Your task to perform on an android device: Open Google Chrome and click the shortcut for Amazon.com Image 0: 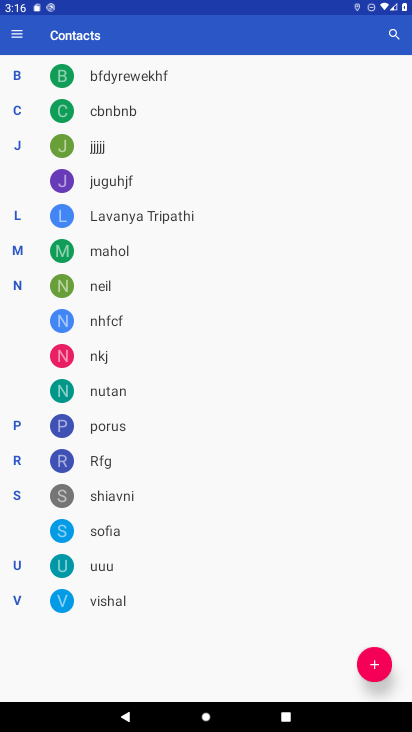
Step 0: press home button
Your task to perform on an android device: Open Google Chrome and click the shortcut for Amazon.com Image 1: 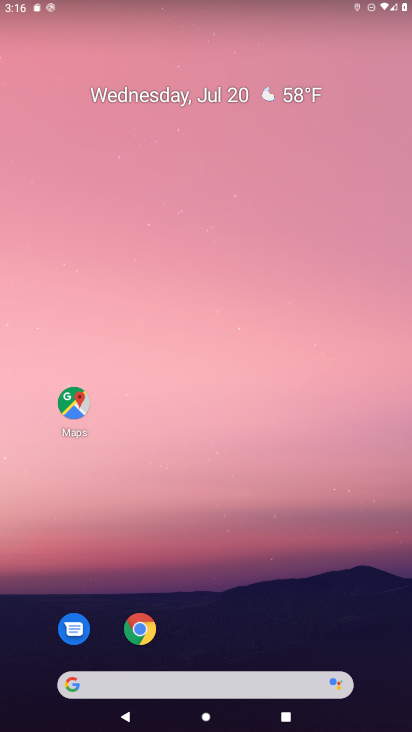
Step 1: drag from (244, 625) to (330, 90)
Your task to perform on an android device: Open Google Chrome and click the shortcut for Amazon.com Image 2: 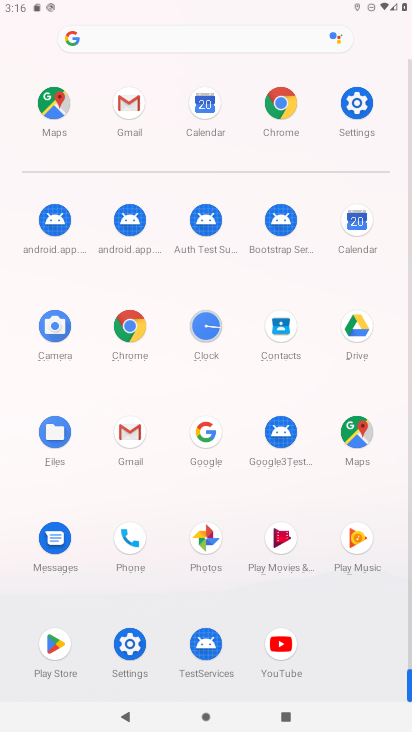
Step 2: click (128, 319)
Your task to perform on an android device: Open Google Chrome and click the shortcut for Amazon.com Image 3: 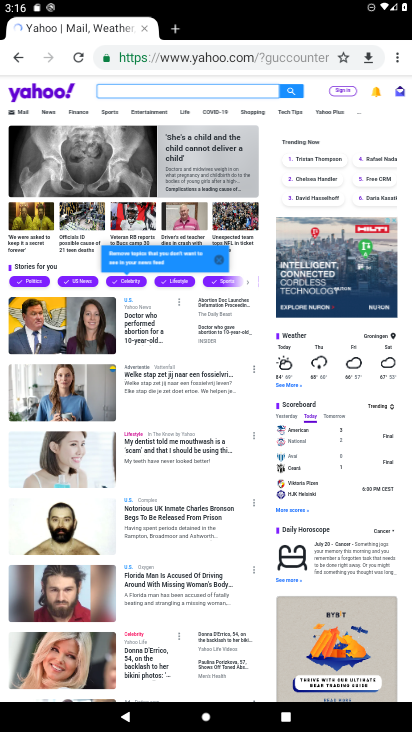
Step 3: drag from (399, 55) to (410, 95)
Your task to perform on an android device: Open Google Chrome and click the shortcut for Amazon.com Image 4: 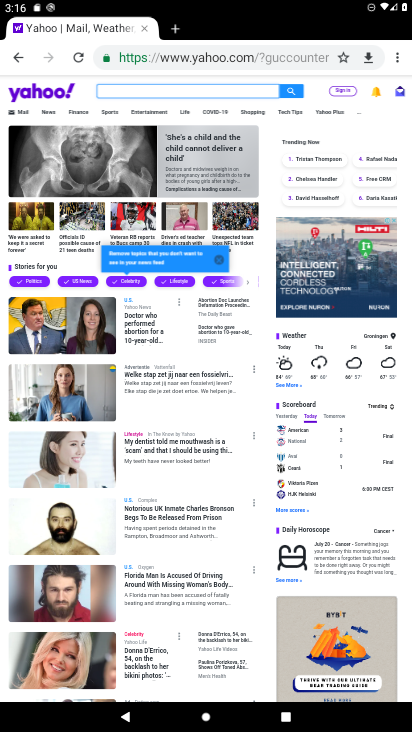
Step 4: drag from (396, 53) to (300, 55)
Your task to perform on an android device: Open Google Chrome and click the shortcut for Amazon.com Image 5: 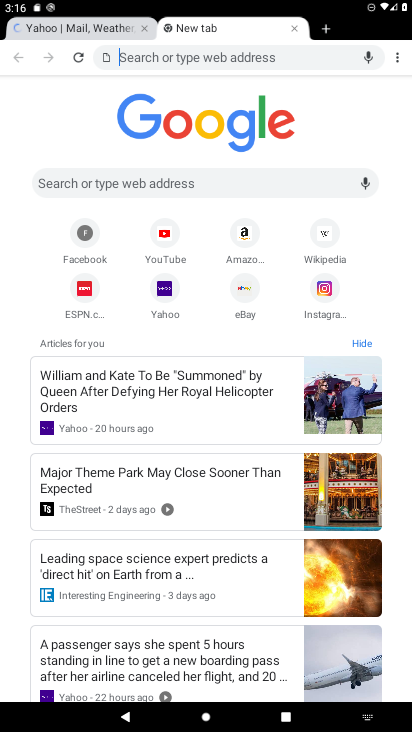
Step 5: click (242, 231)
Your task to perform on an android device: Open Google Chrome and click the shortcut for Amazon.com Image 6: 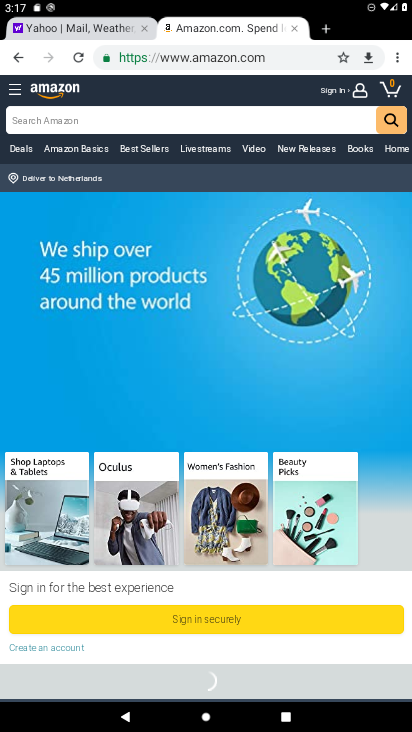
Step 6: task complete